Your task to perform on an android device: Go to settings Image 0: 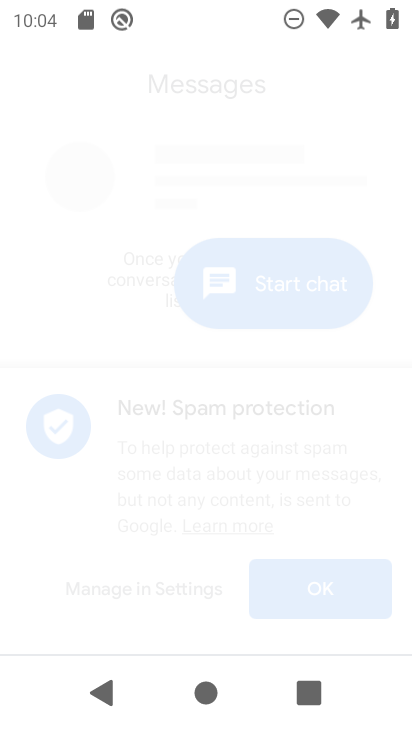
Step 0: press home button
Your task to perform on an android device: Go to settings Image 1: 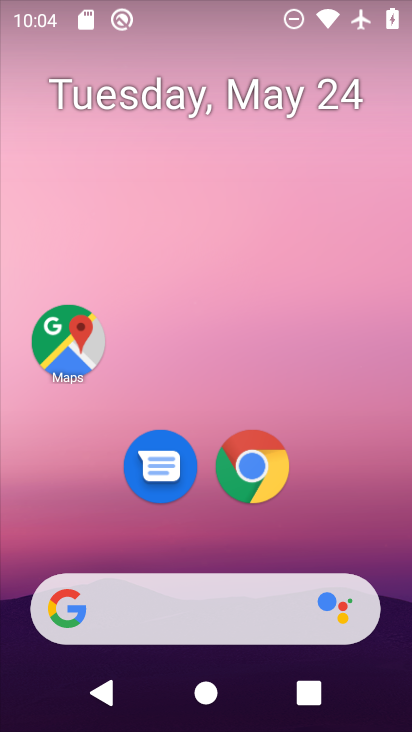
Step 1: drag from (199, 485) to (190, 10)
Your task to perform on an android device: Go to settings Image 2: 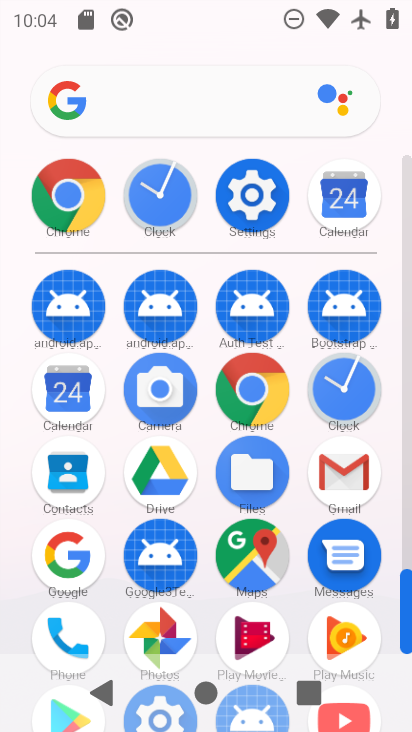
Step 2: click (244, 209)
Your task to perform on an android device: Go to settings Image 3: 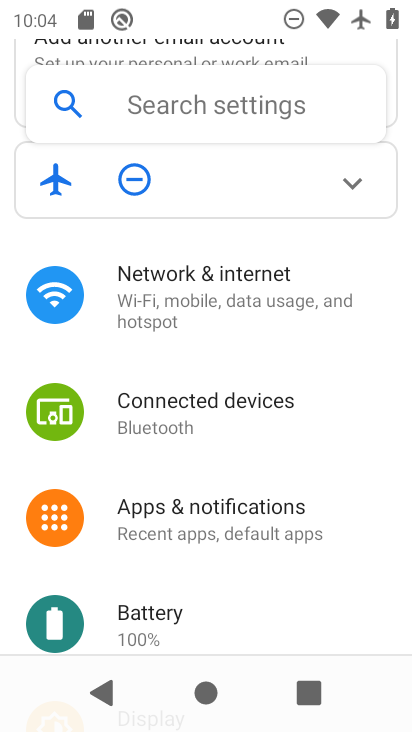
Step 3: task complete